Your task to perform on an android device: toggle data saver in the chrome app Image 0: 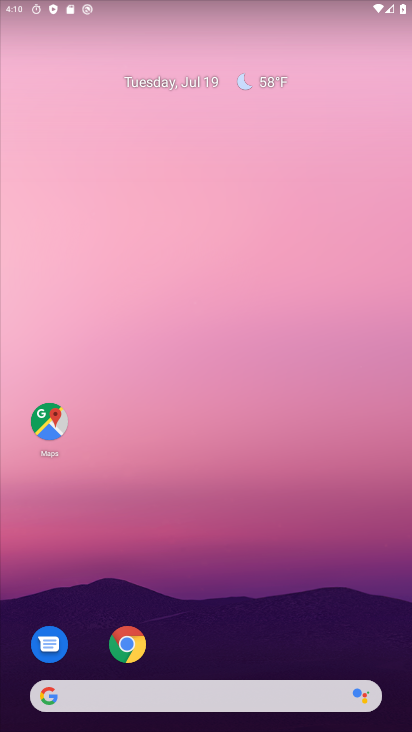
Step 0: drag from (249, 625) to (228, 85)
Your task to perform on an android device: toggle data saver in the chrome app Image 1: 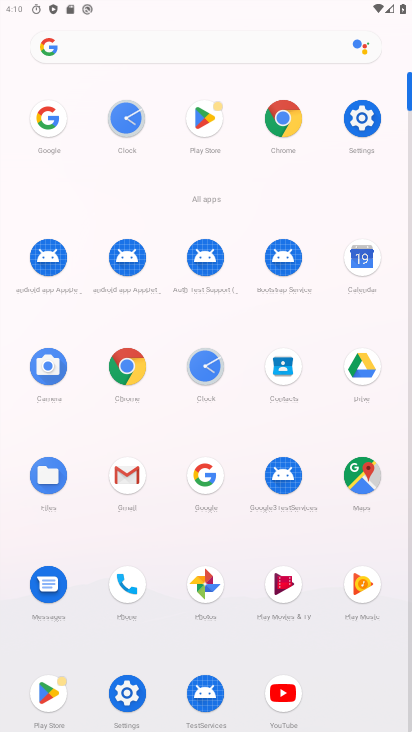
Step 1: click (278, 115)
Your task to perform on an android device: toggle data saver in the chrome app Image 2: 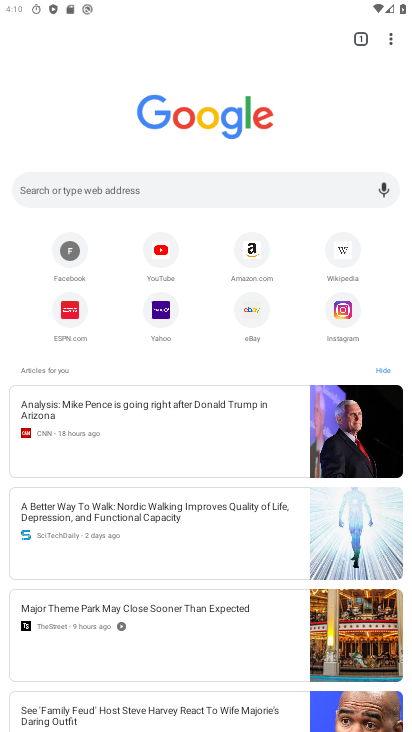
Step 2: drag from (387, 35) to (282, 335)
Your task to perform on an android device: toggle data saver in the chrome app Image 3: 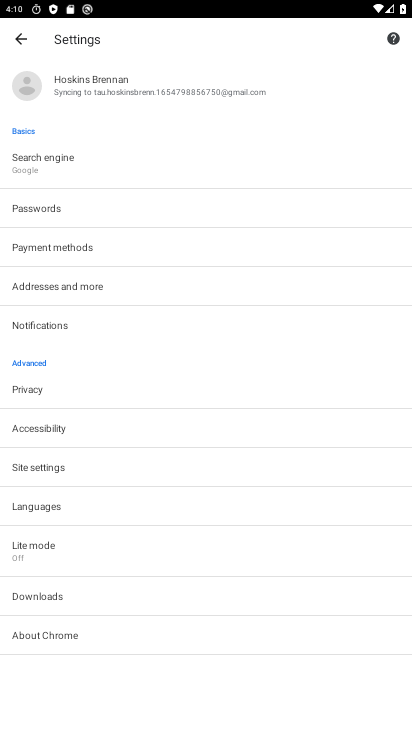
Step 3: click (86, 542)
Your task to perform on an android device: toggle data saver in the chrome app Image 4: 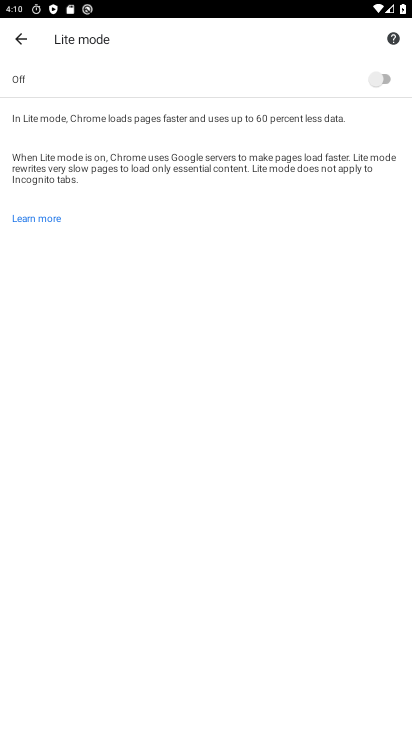
Step 4: click (384, 72)
Your task to perform on an android device: toggle data saver in the chrome app Image 5: 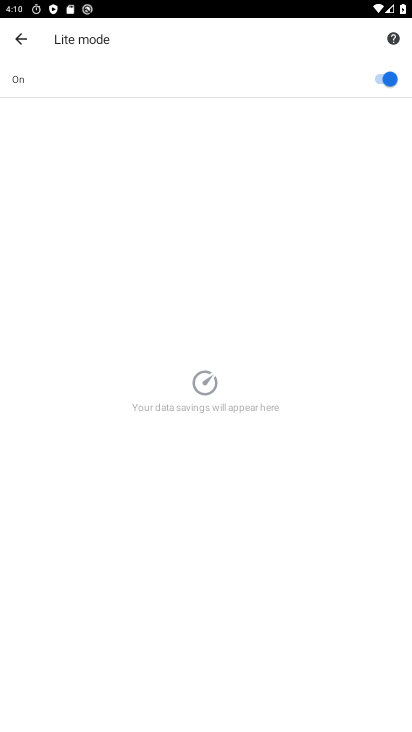
Step 5: task complete